Your task to perform on an android device: check the backup settings in the google photos Image 0: 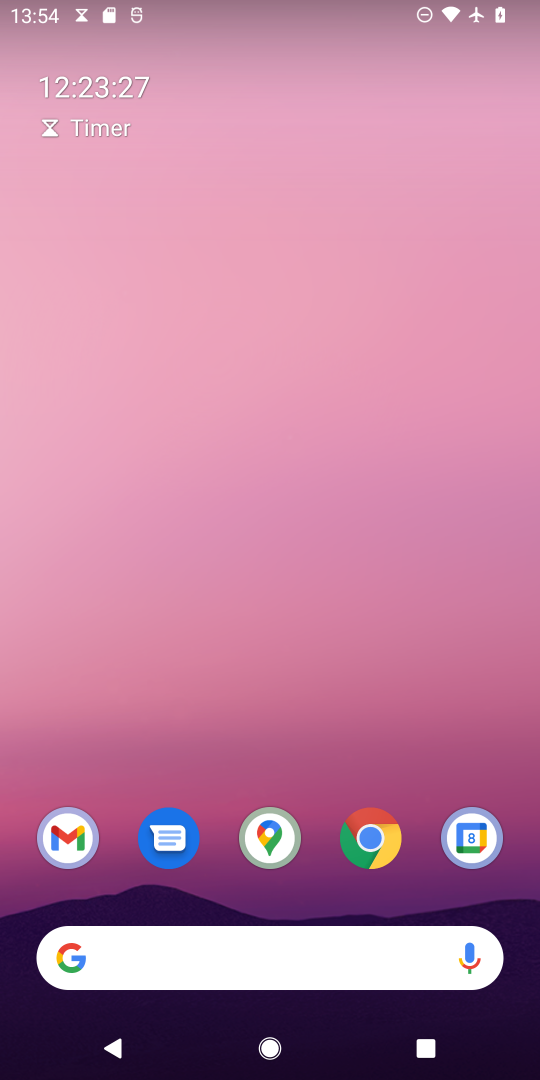
Step 0: press home button
Your task to perform on an android device: check the backup settings in the google photos Image 1: 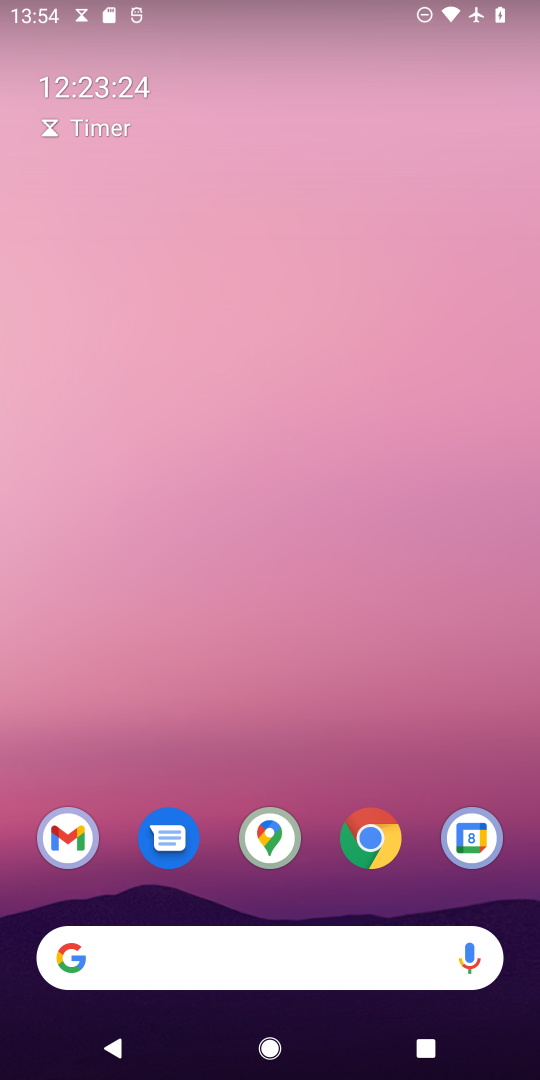
Step 1: drag from (347, 821) to (269, 88)
Your task to perform on an android device: check the backup settings in the google photos Image 2: 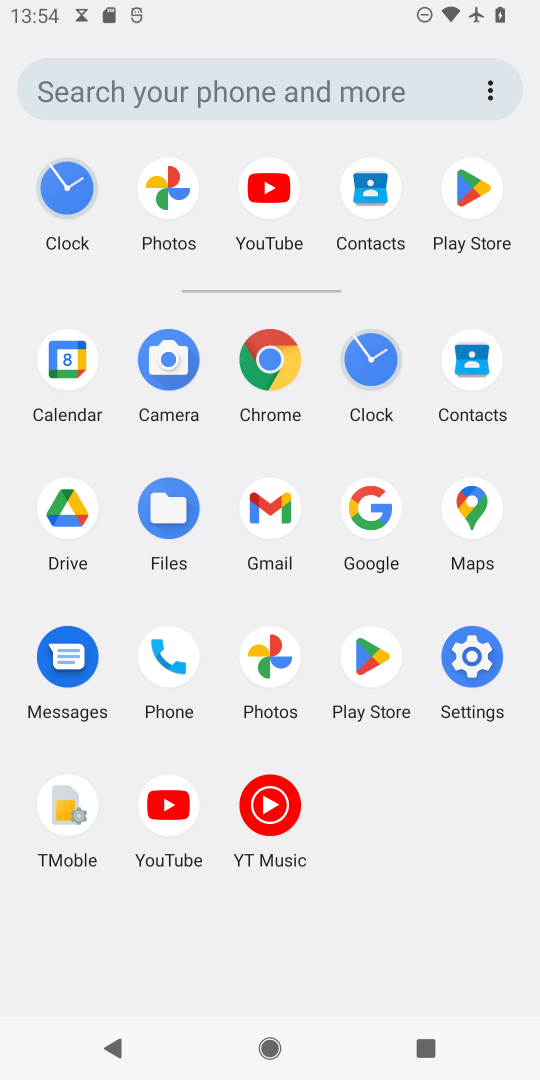
Step 2: click (173, 182)
Your task to perform on an android device: check the backup settings in the google photos Image 3: 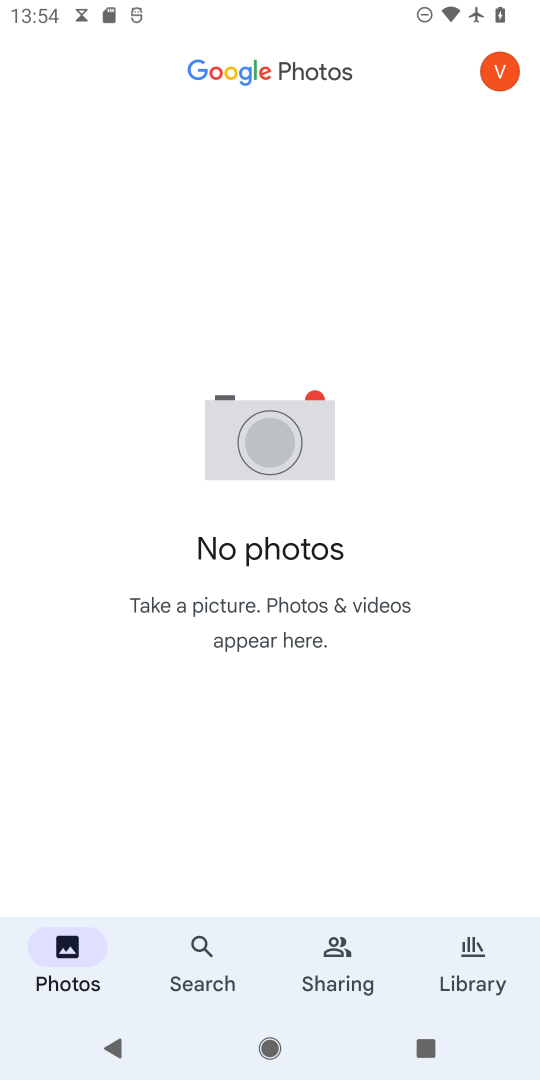
Step 3: click (498, 71)
Your task to perform on an android device: check the backup settings in the google photos Image 4: 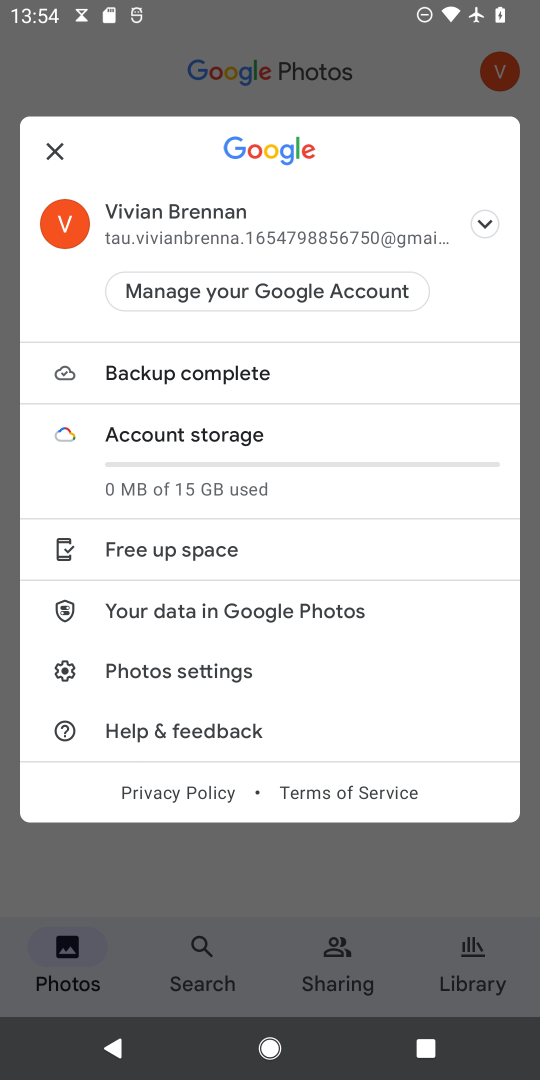
Step 4: click (177, 671)
Your task to perform on an android device: check the backup settings in the google photos Image 5: 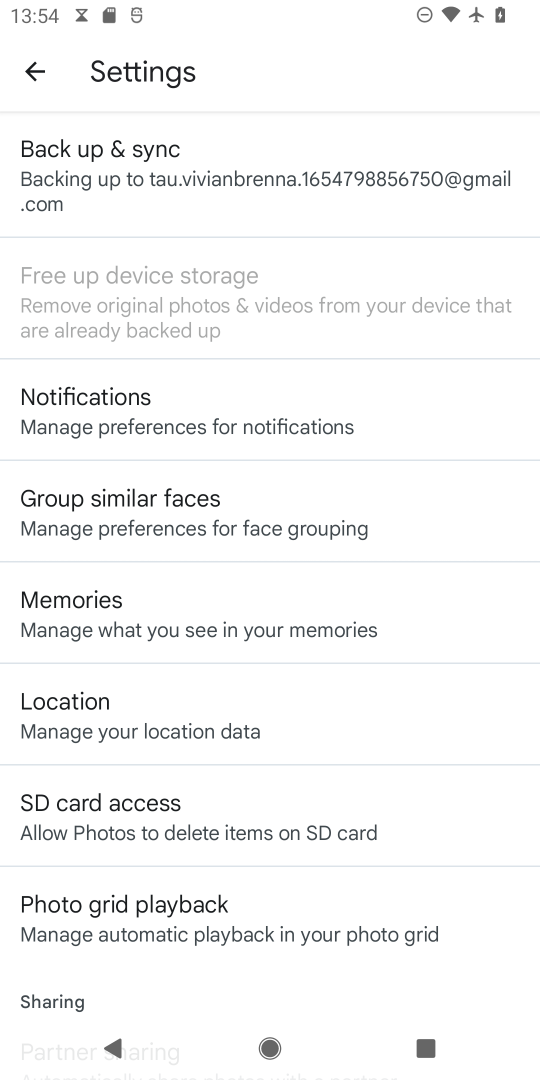
Step 5: click (104, 157)
Your task to perform on an android device: check the backup settings in the google photos Image 6: 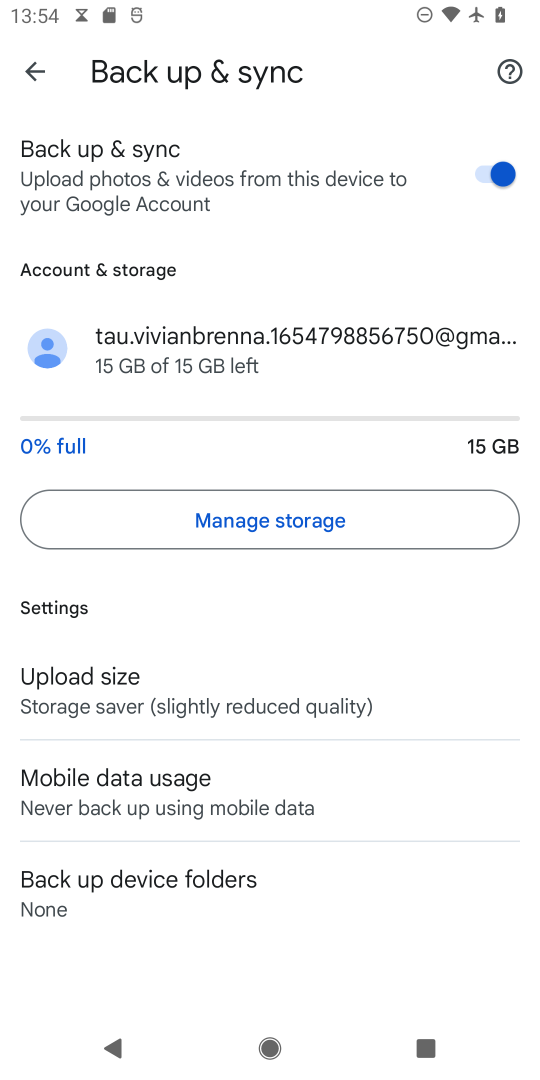
Step 6: task complete